Your task to perform on an android device: turn off smart reply in the gmail app Image 0: 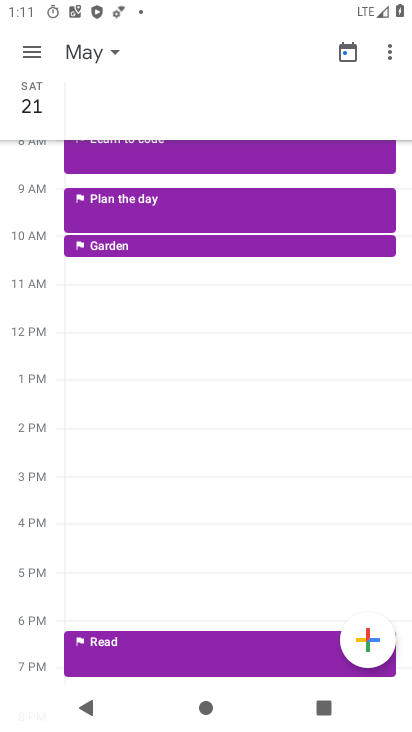
Step 0: press home button
Your task to perform on an android device: turn off smart reply in the gmail app Image 1: 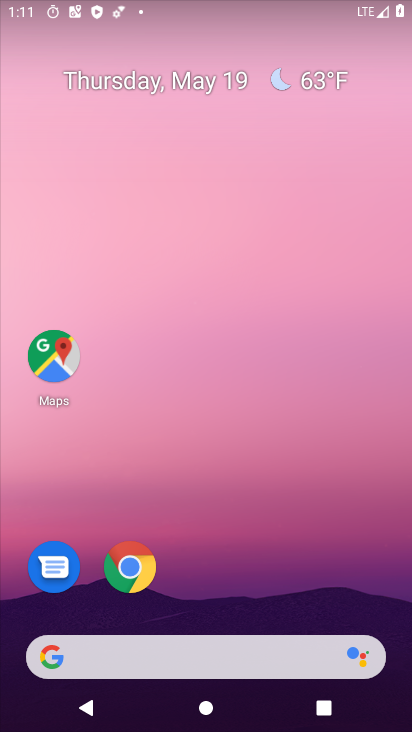
Step 1: drag from (162, 663) to (336, 167)
Your task to perform on an android device: turn off smart reply in the gmail app Image 2: 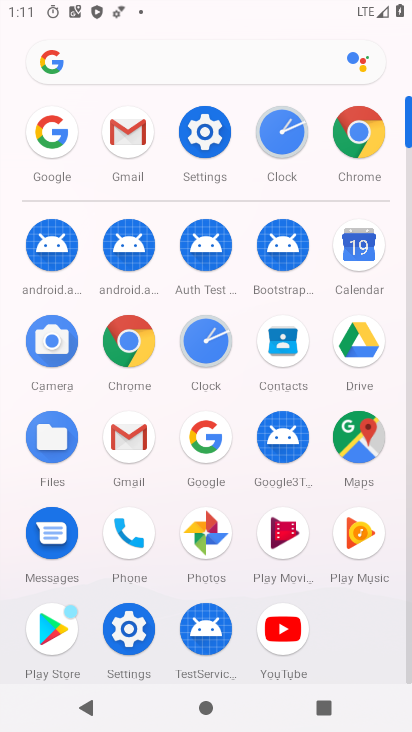
Step 2: click (125, 141)
Your task to perform on an android device: turn off smart reply in the gmail app Image 3: 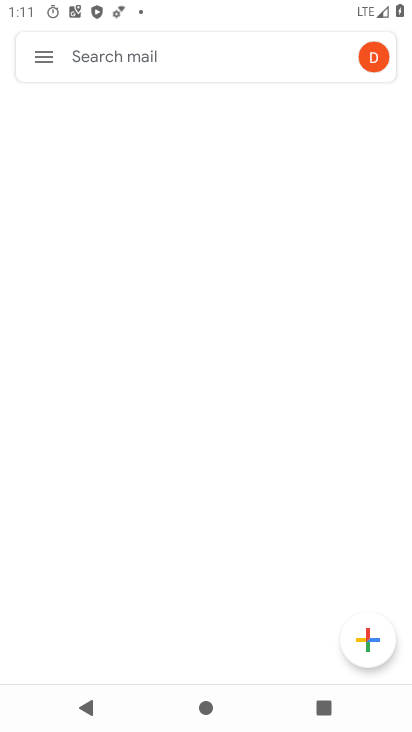
Step 3: click (44, 54)
Your task to perform on an android device: turn off smart reply in the gmail app Image 4: 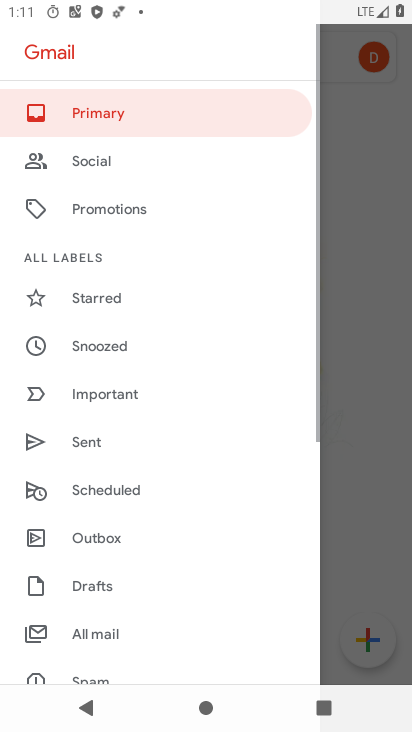
Step 4: drag from (140, 640) to (296, 113)
Your task to perform on an android device: turn off smart reply in the gmail app Image 5: 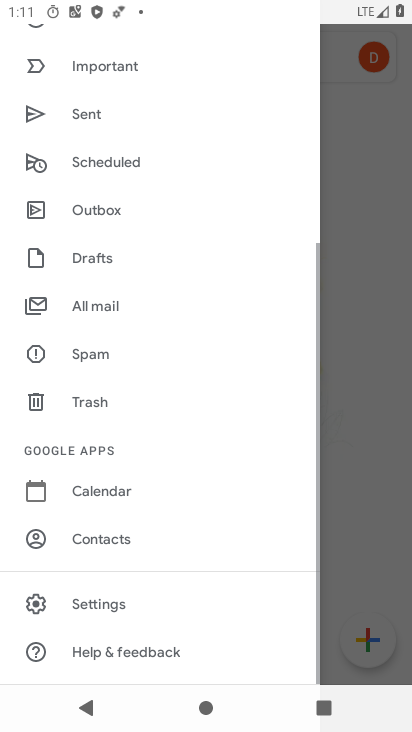
Step 5: click (107, 598)
Your task to perform on an android device: turn off smart reply in the gmail app Image 6: 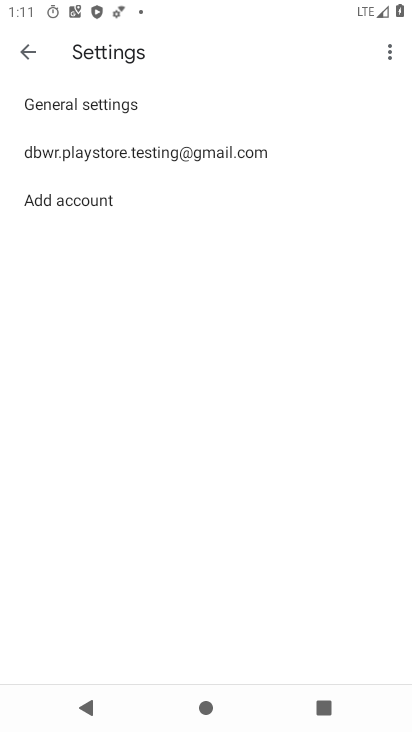
Step 6: click (232, 154)
Your task to perform on an android device: turn off smart reply in the gmail app Image 7: 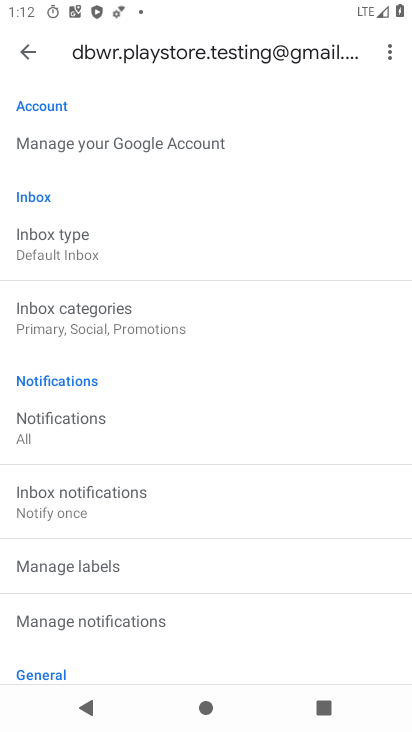
Step 7: drag from (121, 621) to (368, 155)
Your task to perform on an android device: turn off smart reply in the gmail app Image 8: 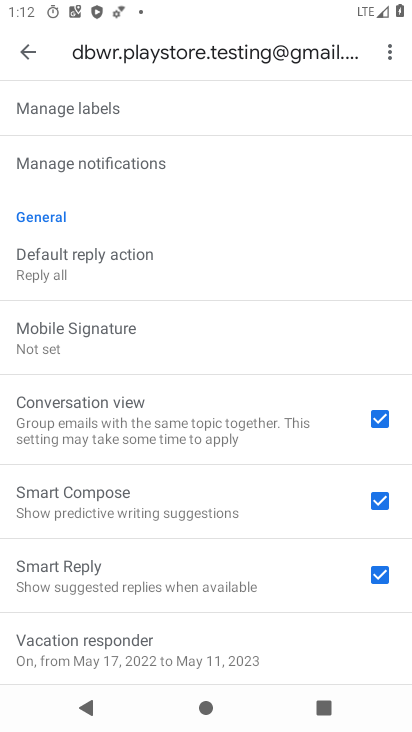
Step 8: click (374, 575)
Your task to perform on an android device: turn off smart reply in the gmail app Image 9: 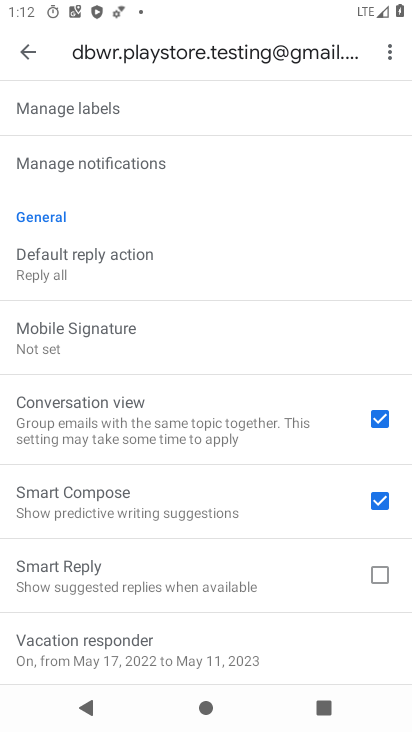
Step 9: task complete